Your task to perform on an android device: turn off priority inbox in the gmail app Image 0: 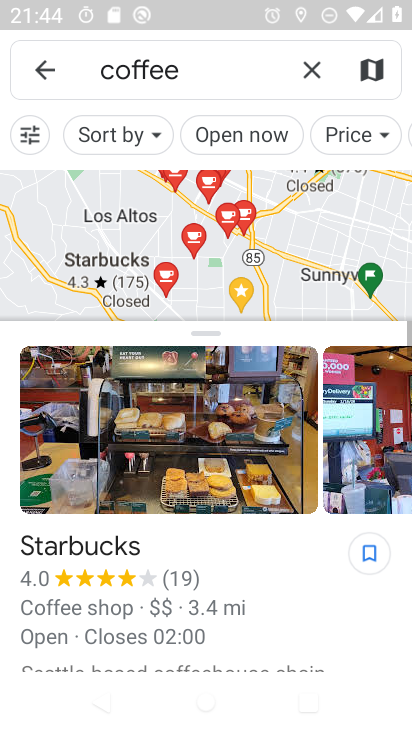
Step 0: press home button
Your task to perform on an android device: turn off priority inbox in the gmail app Image 1: 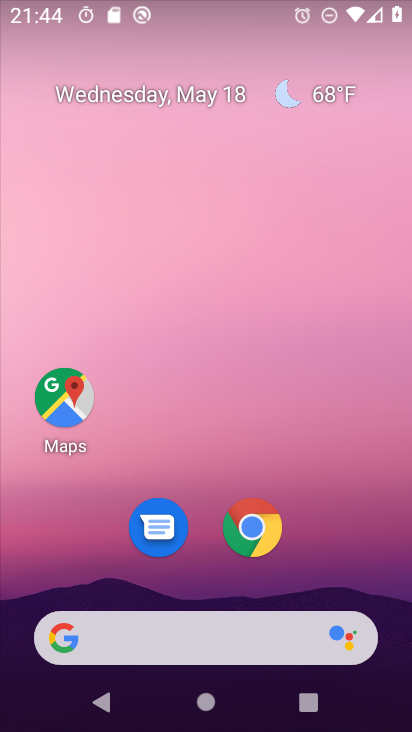
Step 1: drag from (401, 696) to (367, 253)
Your task to perform on an android device: turn off priority inbox in the gmail app Image 2: 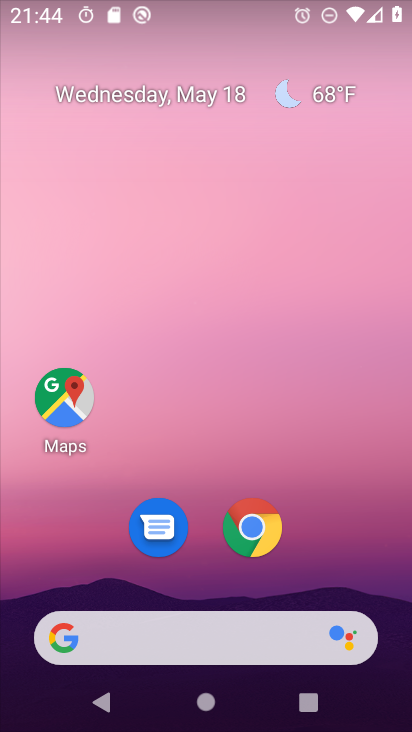
Step 2: drag from (376, 549) to (350, 209)
Your task to perform on an android device: turn off priority inbox in the gmail app Image 3: 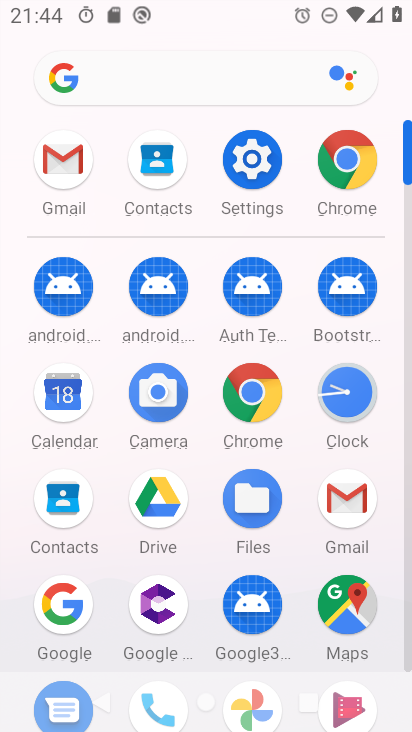
Step 3: click (344, 516)
Your task to perform on an android device: turn off priority inbox in the gmail app Image 4: 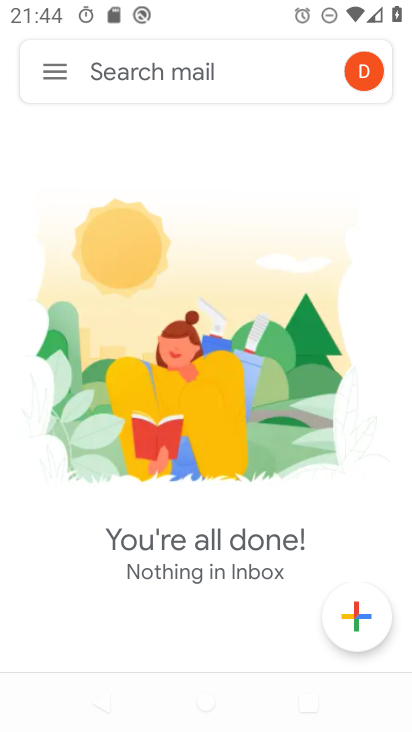
Step 4: click (54, 75)
Your task to perform on an android device: turn off priority inbox in the gmail app Image 5: 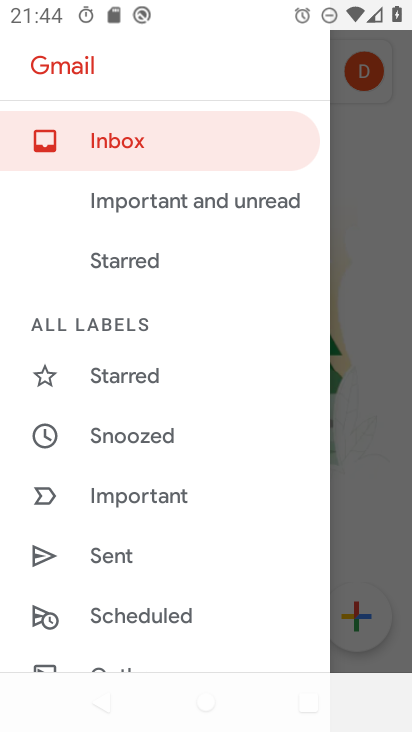
Step 5: drag from (247, 621) to (245, 369)
Your task to perform on an android device: turn off priority inbox in the gmail app Image 6: 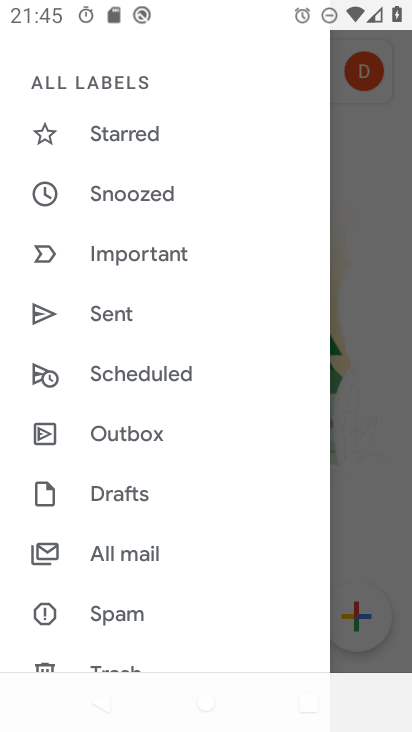
Step 6: drag from (243, 545) to (262, 262)
Your task to perform on an android device: turn off priority inbox in the gmail app Image 7: 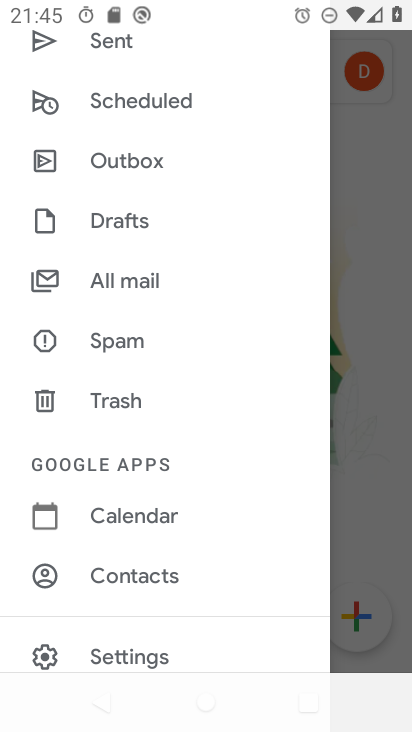
Step 7: click (88, 653)
Your task to perform on an android device: turn off priority inbox in the gmail app Image 8: 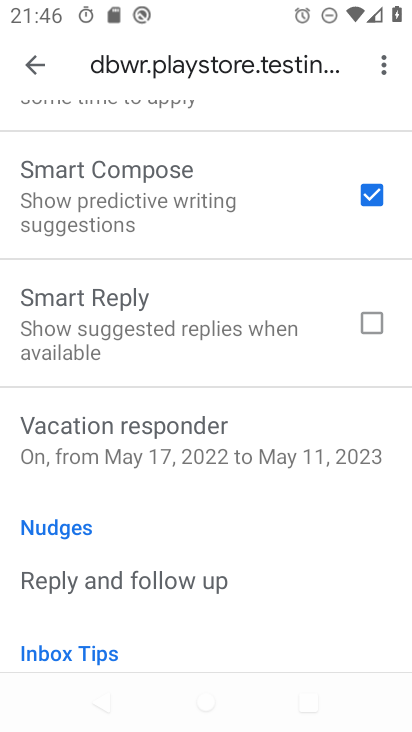
Step 8: drag from (210, 199) to (199, 597)
Your task to perform on an android device: turn off priority inbox in the gmail app Image 9: 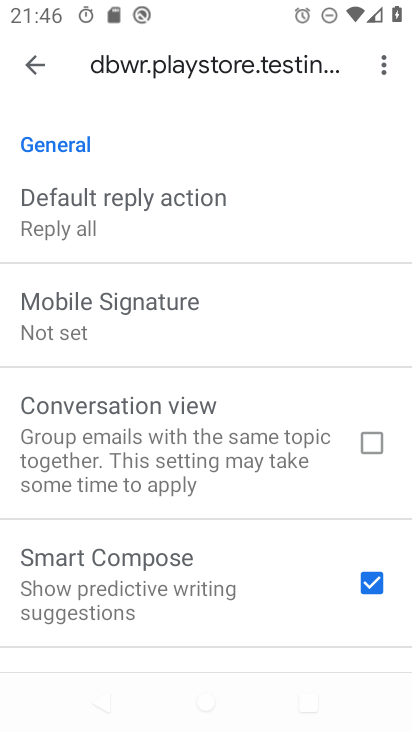
Step 9: drag from (204, 160) to (208, 432)
Your task to perform on an android device: turn off priority inbox in the gmail app Image 10: 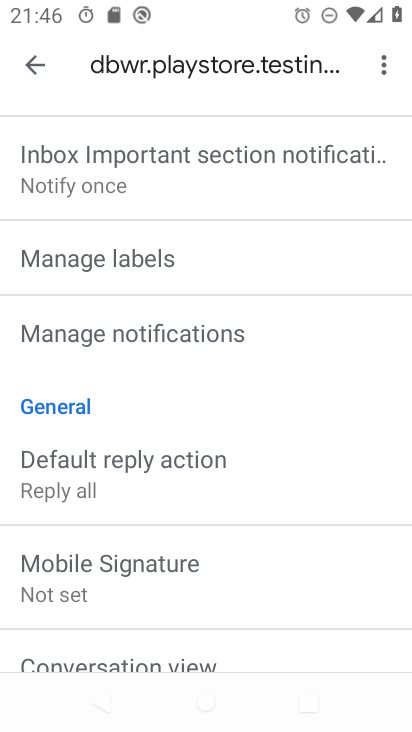
Step 10: drag from (267, 402) to (253, 571)
Your task to perform on an android device: turn off priority inbox in the gmail app Image 11: 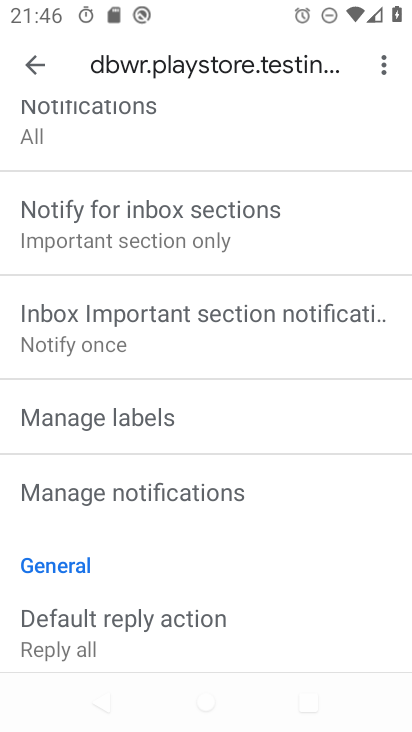
Step 11: drag from (236, 157) to (238, 523)
Your task to perform on an android device: turn off priority inbox in the gmail app Image 12: 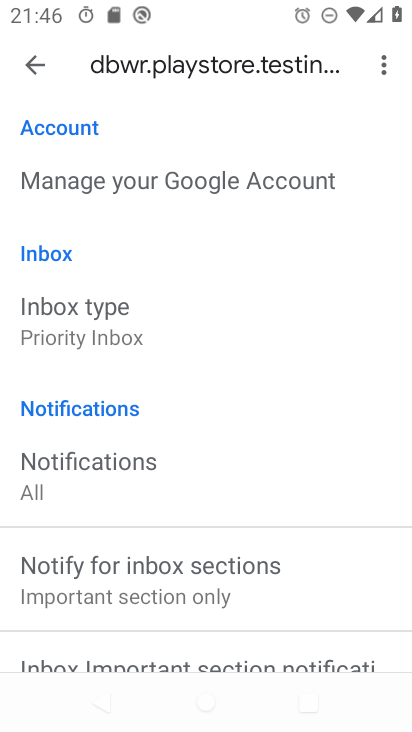
Step 12: click (71, 314)
Your task to perform on an android device: turn off priority inbox in the gmail app Image 13: 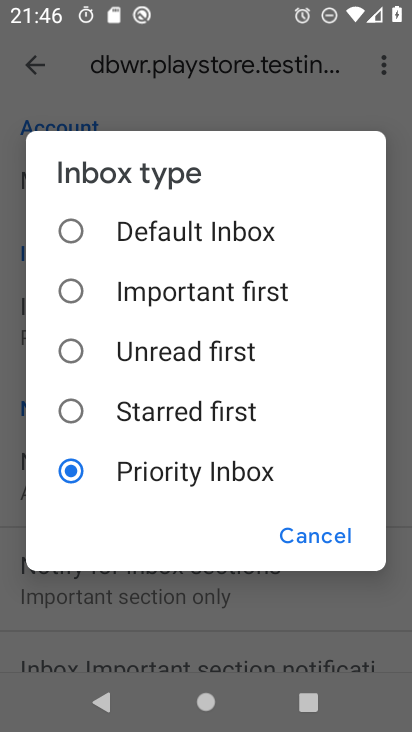
Step 13: click (77, 233)
Your task to perform on an android device: turn off priority inbox in the gmail app Image 14: 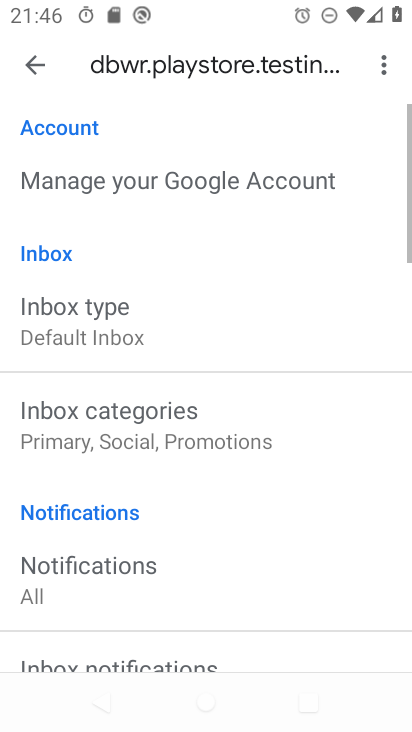
Step 14: task complete